Your task to perform on an android device: Turn on the flashlight Image 0: 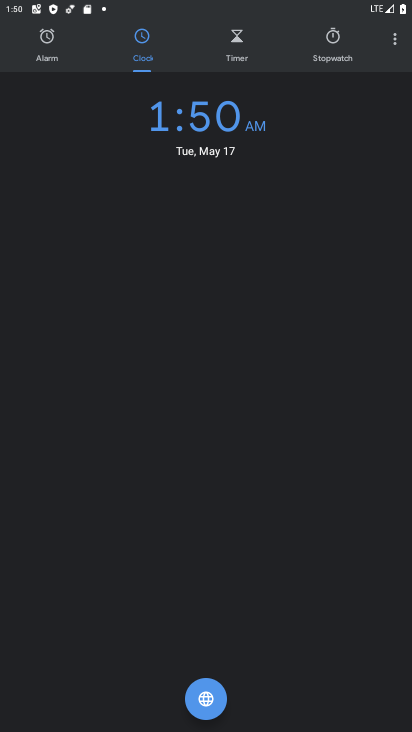
Step 0: press home button
Your task to perform on an android device: Turn on the flashlight Image 1: 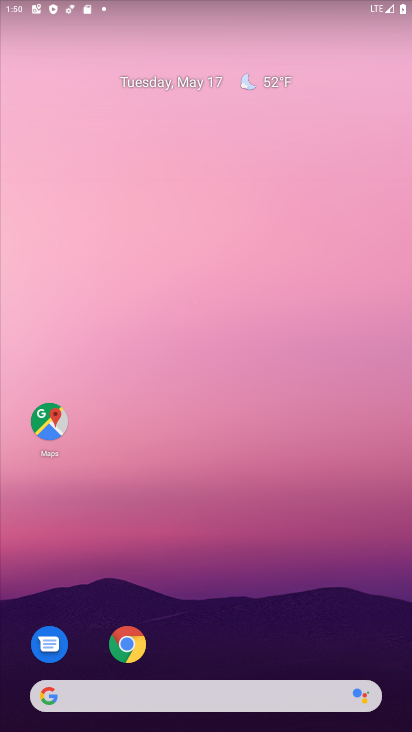
Step 1: task complete